Your task to perform on an android device: Search for seafood restaurants on Google Maps Image 0: 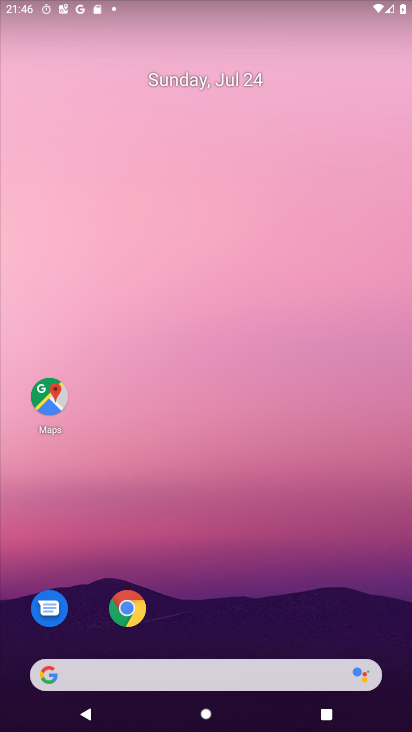
Step 0: drag from (198, 628) to (200, 74)
Your task to perform on an android device: Search for seafood restaurants on Google Maps Image 1: 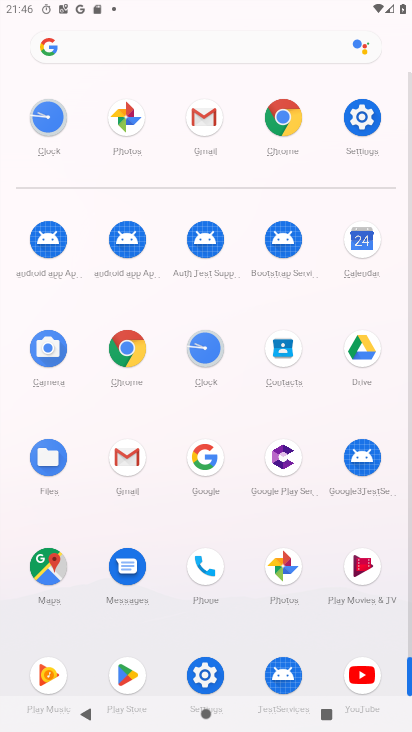
Step 1: click (48, 581)
Your task to perform on an android device: Search for seafood restaurants on Google Maps Image 2: 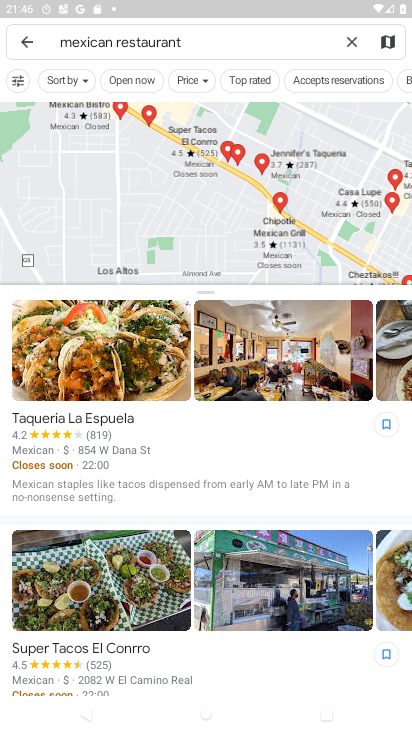
Step 2: click (349, 43)
Your task to perform on an android device: Search for seafood restaurants on Google Maps Image 3: 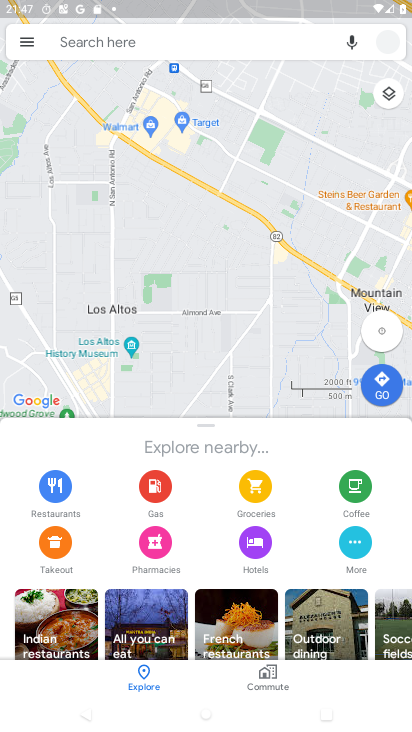
Step 3: click (271, 38)
Your task to perform on an android device: Search for seafood restaurants on Google Maps Image 4: 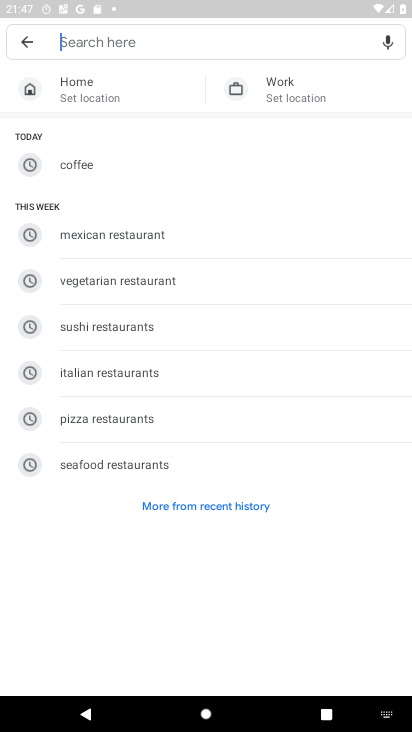
Step 4: type "seafood restaurant"
Your task to perform on an android device: Search for seafood restaurants on Google Maps Image 5: 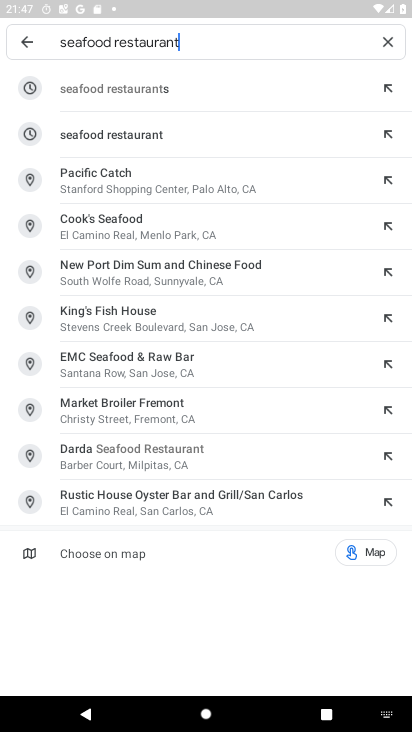
Step 5: click (165, 104)
Your task to perform on an android device: Search for seafood restaurants on Google Maps Image 6: 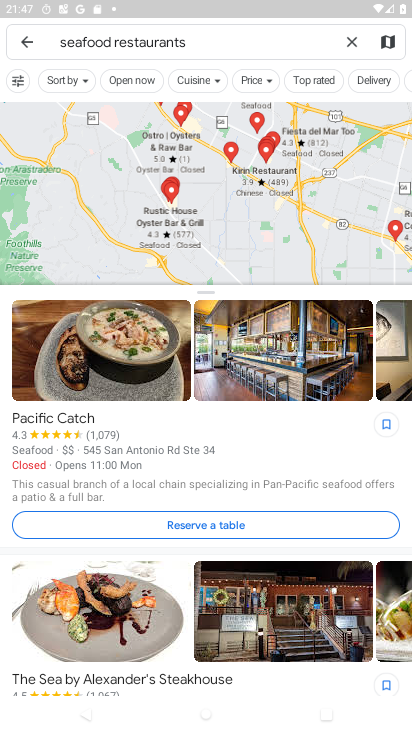
Step 6: task complete